Your task to perform on an android device: all mails in gmail Image 0: 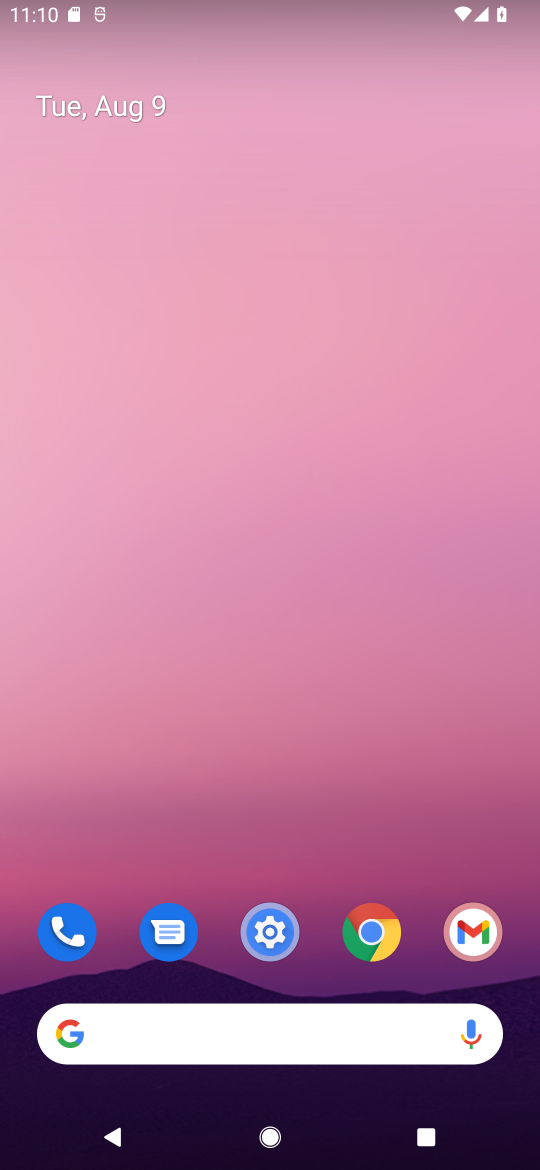
Step 0: drag from (240, 940) to (357, 14)
Your task to perform on an android device: all mails in gmail Image 1: 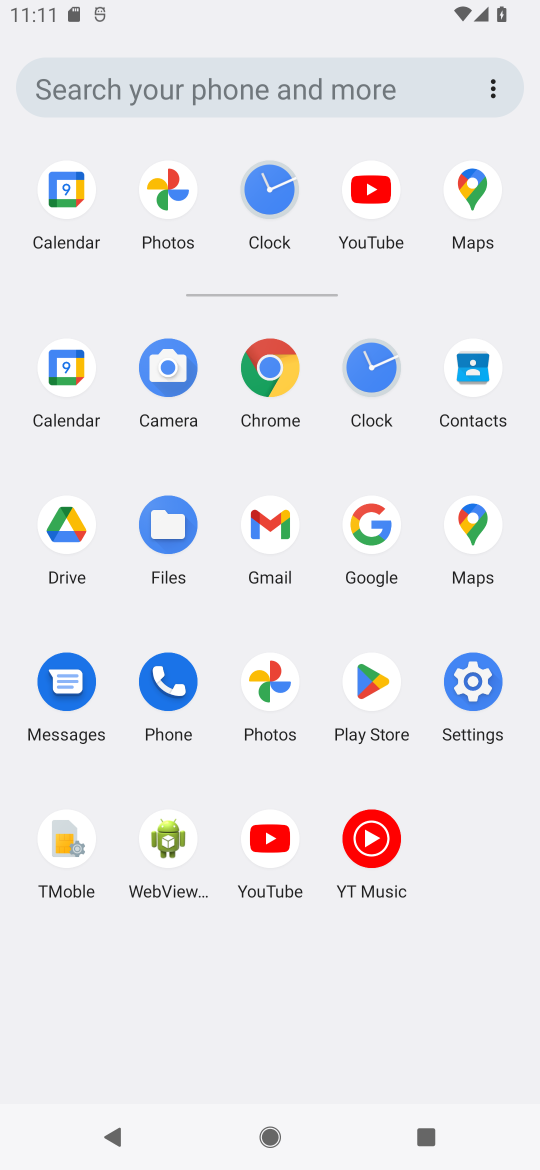
Step 1: click (280, 533)
Your task to perform on an android device: all mails in gmail Image 2: 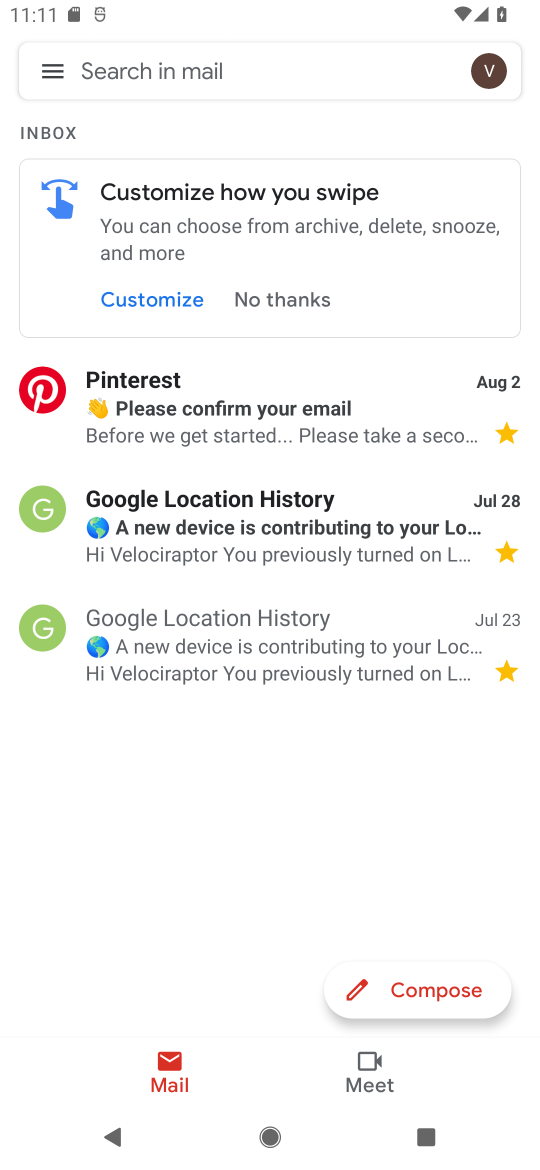
Step 2: click (60, 68)
Your task to perform on an android device: all mails in gmail Image 3: 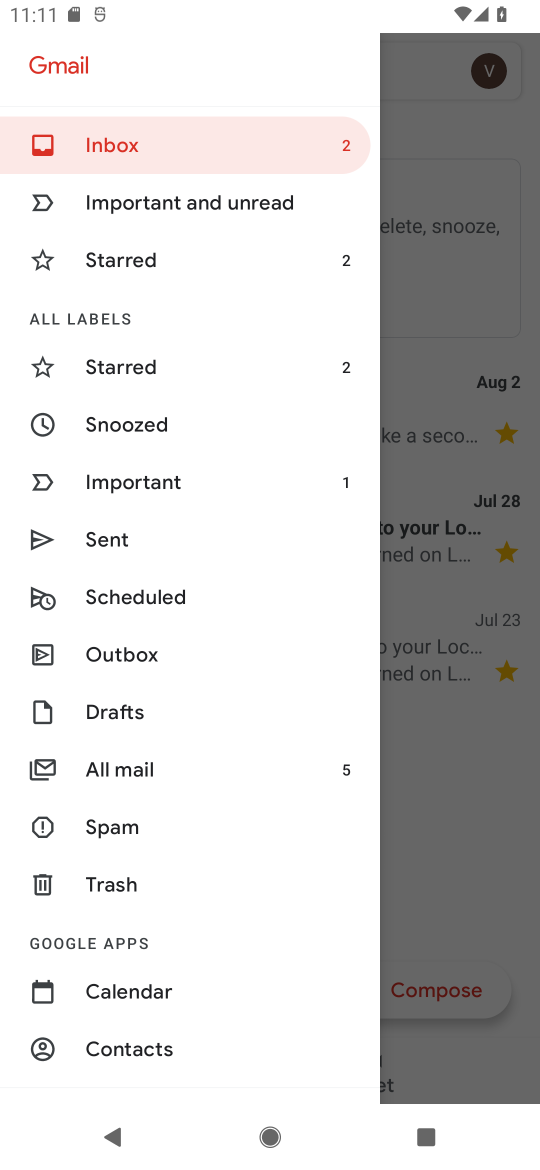
Step 3: click (146, 775)
Your task to perform on an android device: all mails in gmail Image 4: 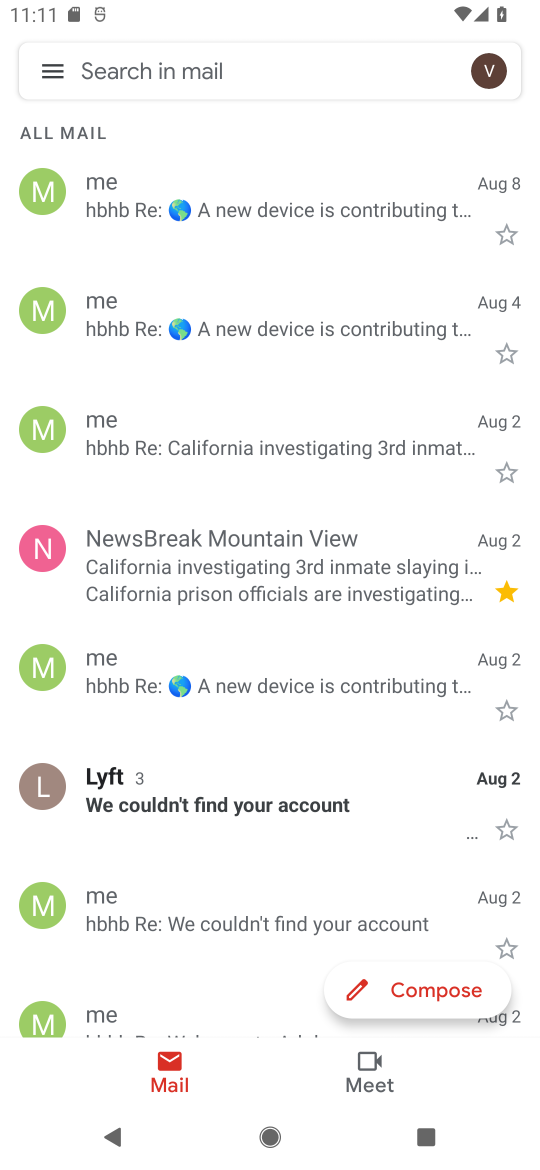
Step 4: task complete